Your task to perform on an android device: empty trash in the gmail app Image 0: 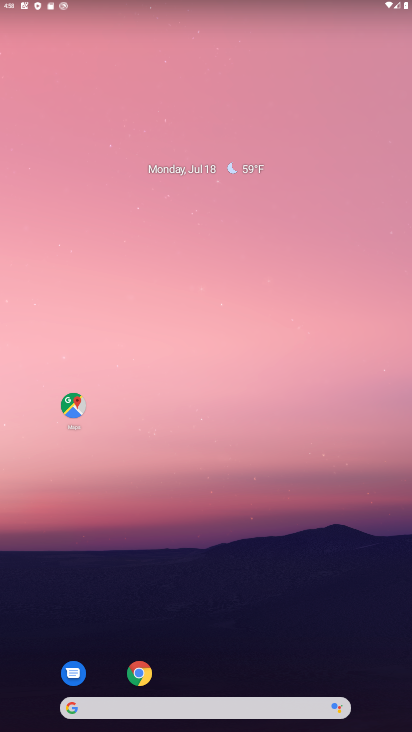
Step 0: drag from (275, 581) to (188, 122)
Your task to perform on an android device: empty trash in the gmail app Image 1: 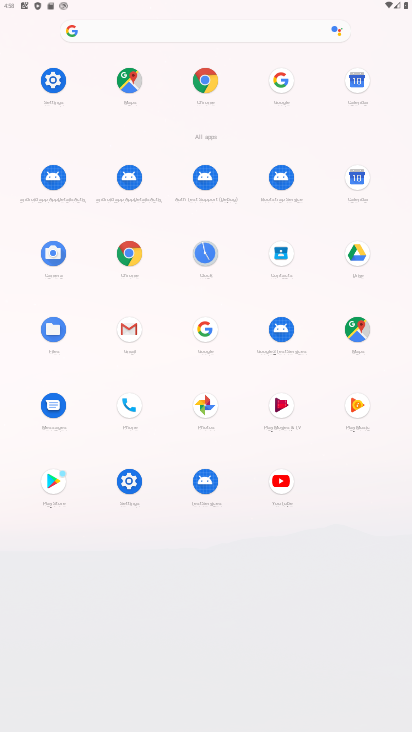
Step 1: click (117, 338)
Your task to perform on an android device: empty trash in the gmail app Image 2: 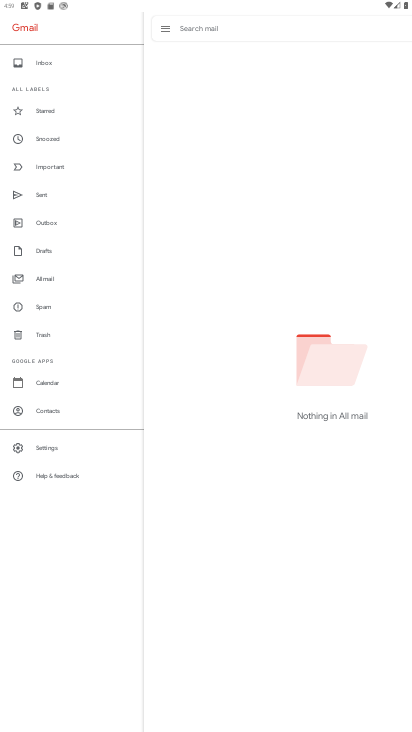
Step 2: click (51, 340)
Your task to perform on an android device: empty trash in the gmail app Image 3: 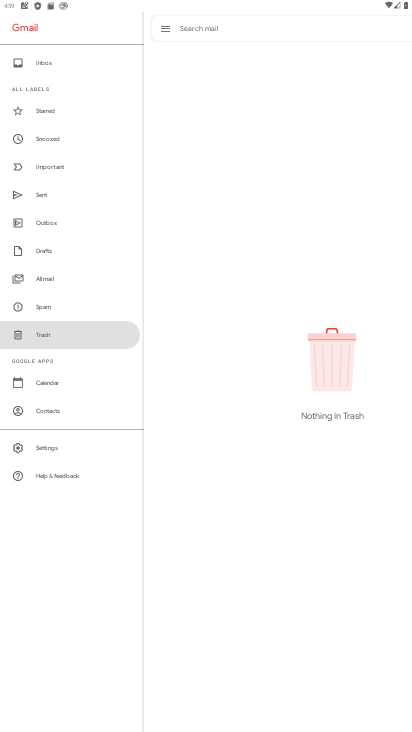
Step 3: task complete